Your task to perform on an android device: Go to settings Image 0: 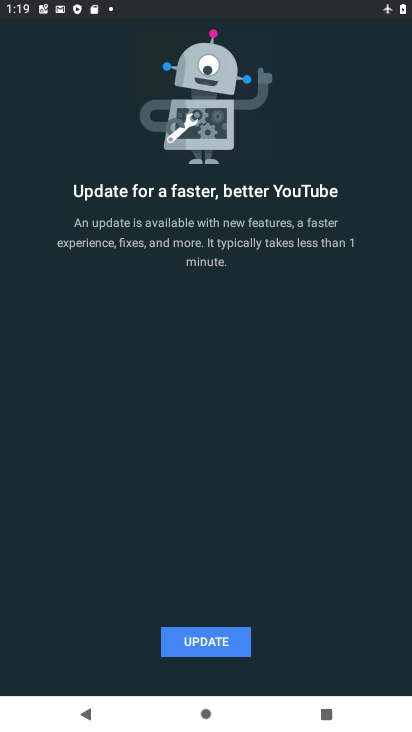
Step 0: press back button
Your task to perform on an android device: Go to settings Image 1: 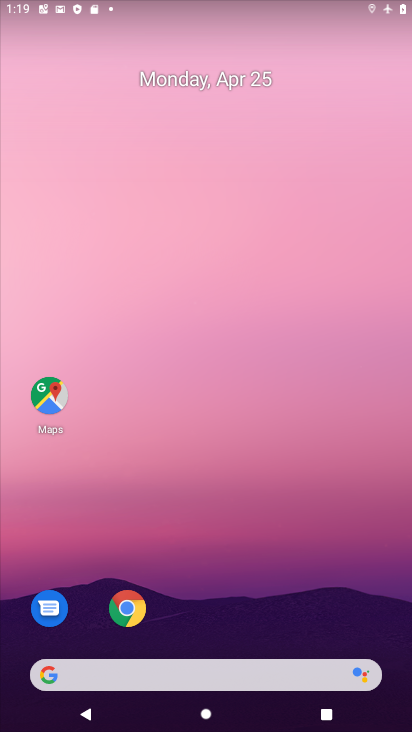
Step 1: drag from (219, 611) to (201, 78)
Your task to perform on an android device: Go to settings Image 2: 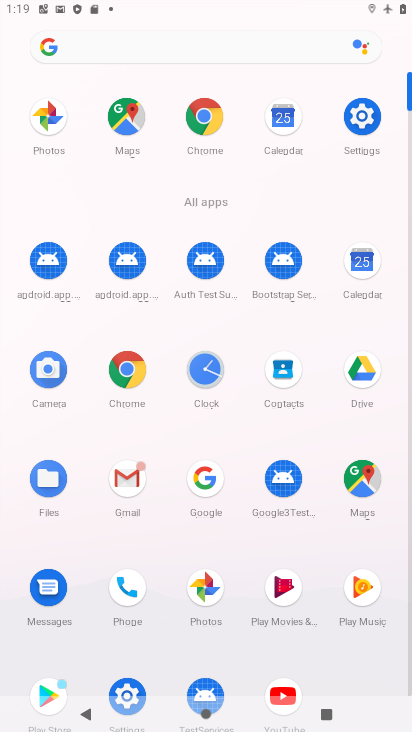
Step 2: click (357, 126)
Your task to perform on an android device: Go to settings Image 3: 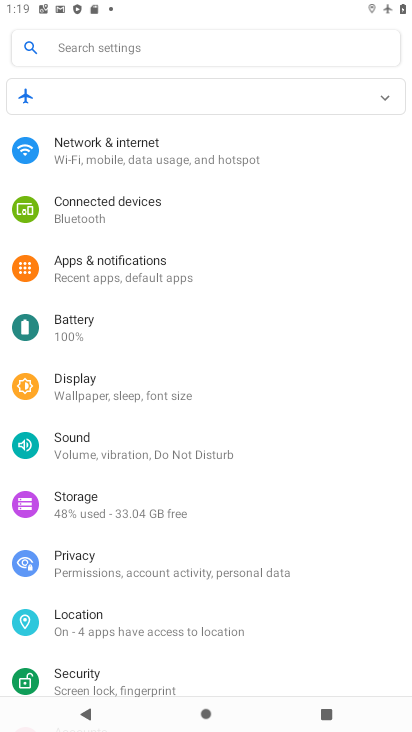
Step 3: task complete